Your task to perform on an android device: show emergency info Image 0: 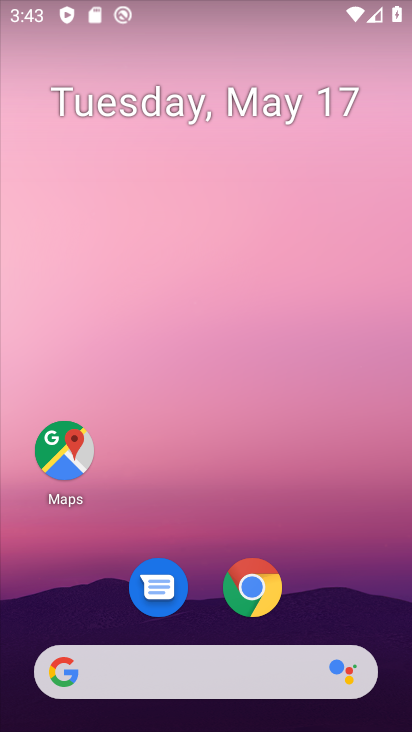
Step 0: drag from (274, 678) to (222, 192)
Your task to perform on an android device: show emergency info Image 1: 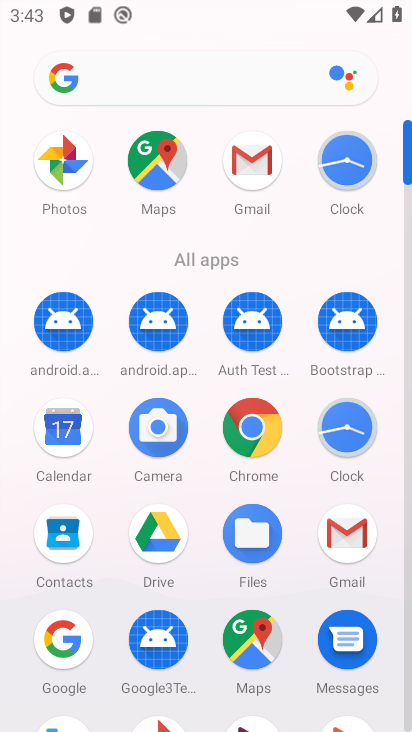
Step 1: drag from (199, 460) to (178, 331)
Your task to perform on an android device: show emergency info Image 2: 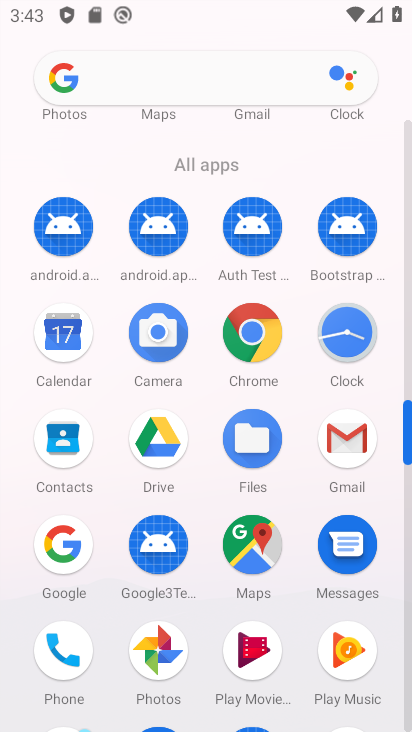
Step 2: drag from (119, 347) to (125, 238)
Your task to perform on an android device: show emergency info Image 3: 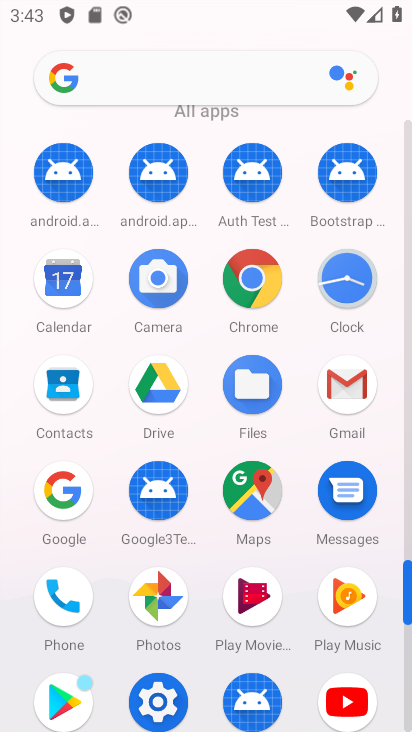
Step 3: click (143, 687)
Your task to perform on an android device: show emergency info Image 4: 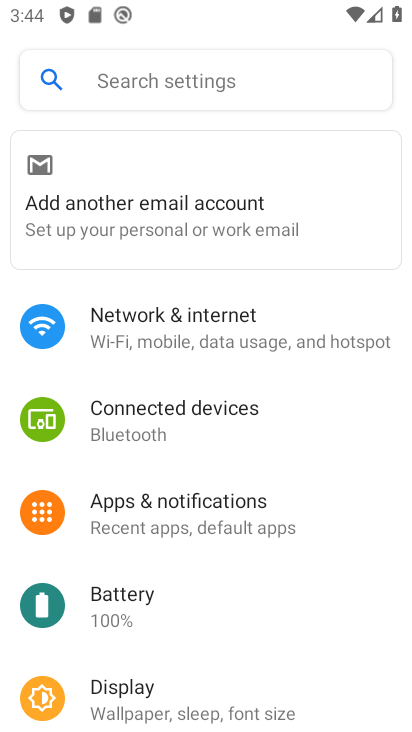
Step 4: click (144, 87)
Your task to perform on an android device: show emergency info Image 5: 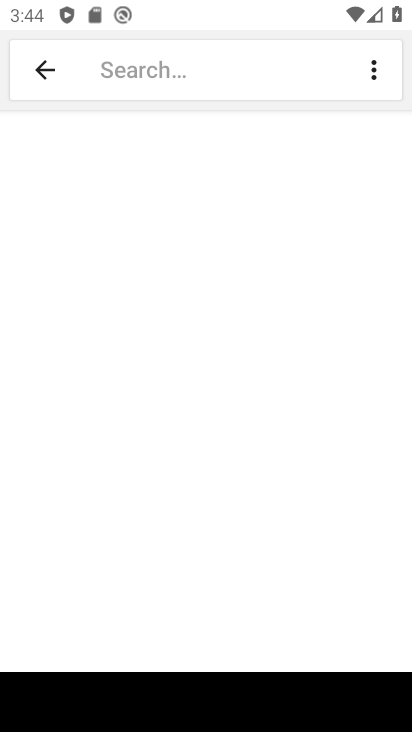
Step 5: drag from (357, 721) to (381, 632)
Your task to perform on an android device: show emergency info Image 6: 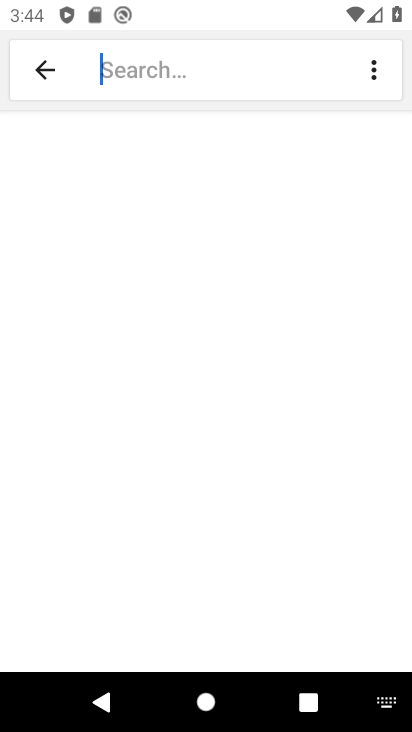
Step 6: click (397, 711)
Your task to perform on an android device: show emergency info Image 7: 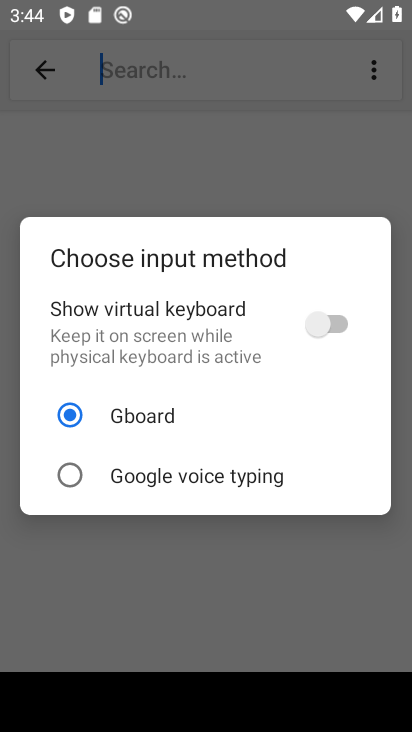
Step 7: click (315, 323)
Your task to perform on an android device: show emergency info Image 8: 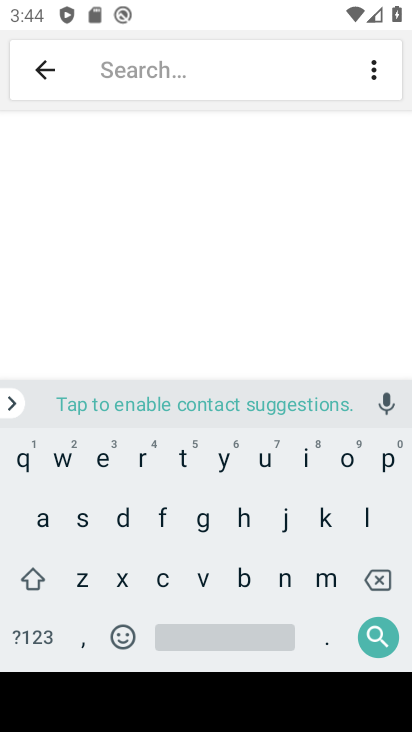
Step 8: click (110, 451)
Your task to perform on an android device: show emergency info Image 9: 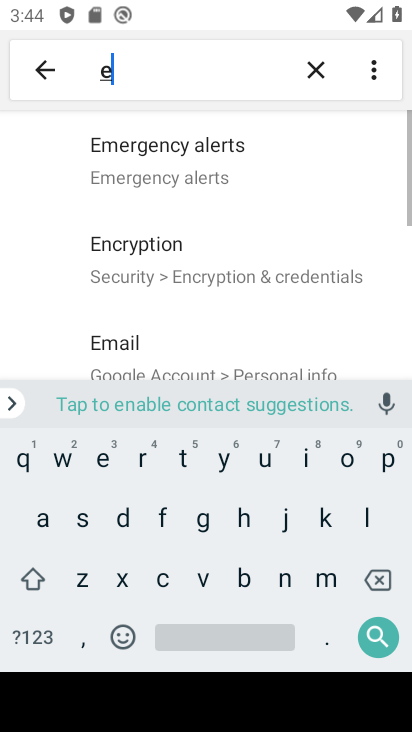
Step 9: click (331, 582)
Your task to perform on an android device: show emergency info Image 10: 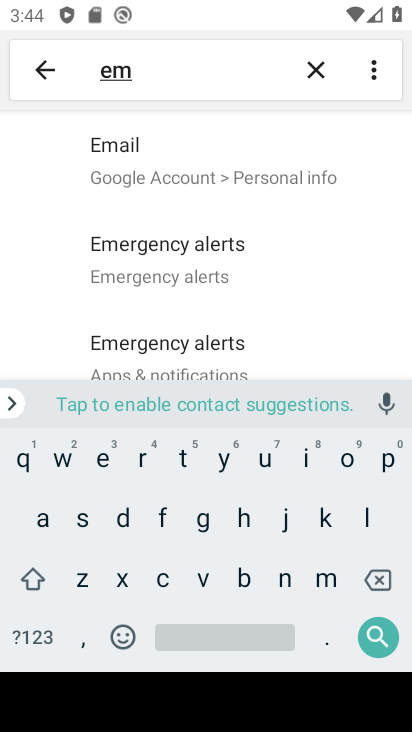
Step 10: click (101, 459)
Your task to perform on an android device: show emergency info Image 11: 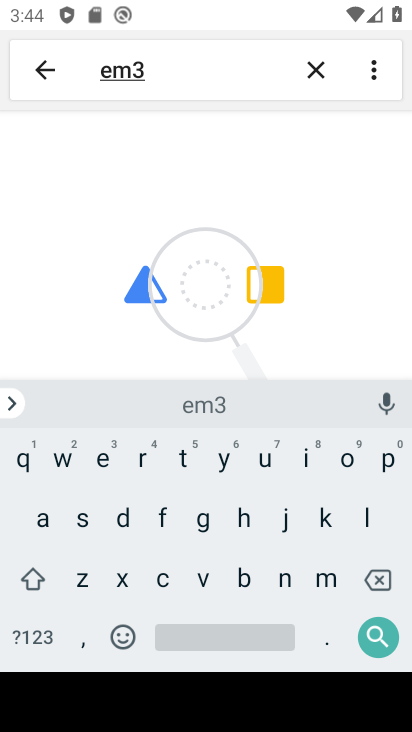
Step 11: click (389, 578)
Your task to perform on an android device: show emergency info Image 12: 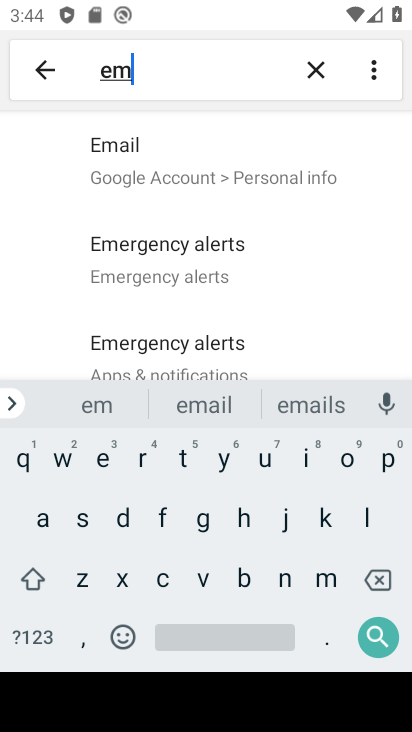
Step 12: click (106, 457)
Your task to perform on an android device: show emergency info Image 13: 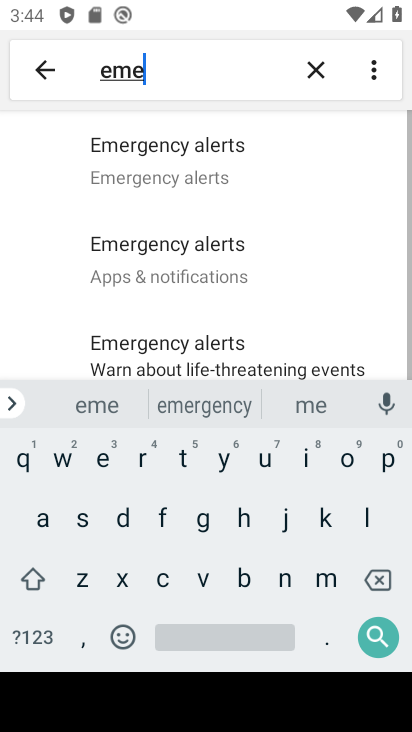
Step 13: click (188, 404)
Your task to perform on an android device: show emergency info Image 14: 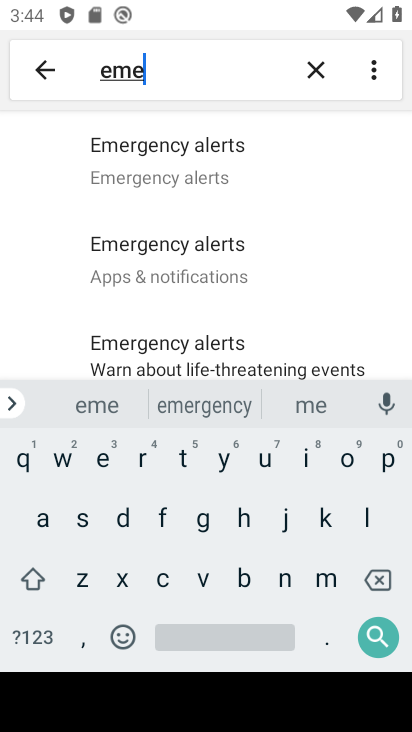
Step 14: click (228, 407)
Your task to perform on an android device: show emergency info Image 15: 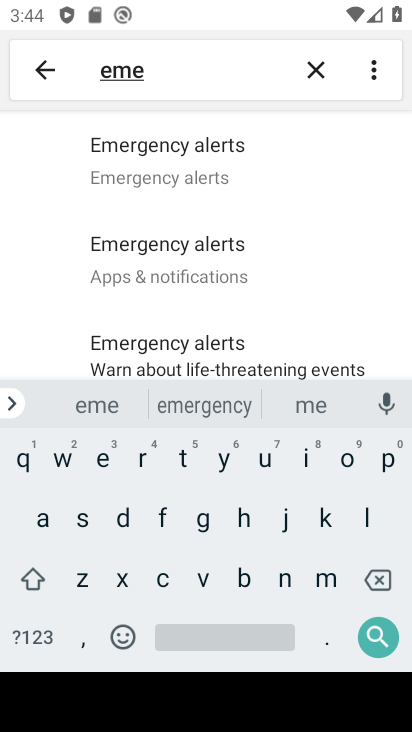
Step 15: click (183, 400)
Your task to perform on an android device: show emergency info Image 16: 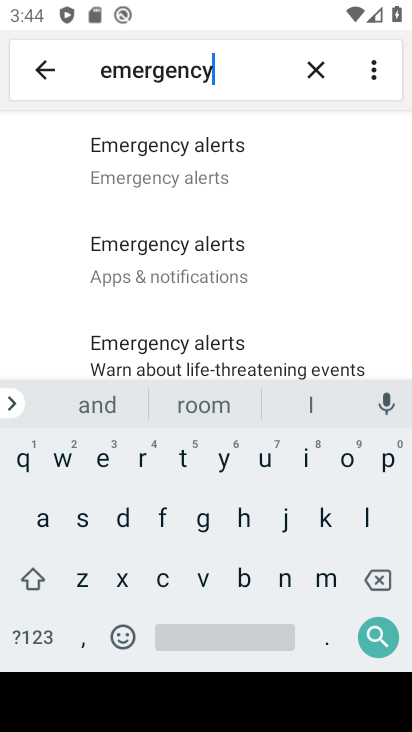
Step 16: click (308, 453)
Your task to perform on an android device: show emergency info Image 17: 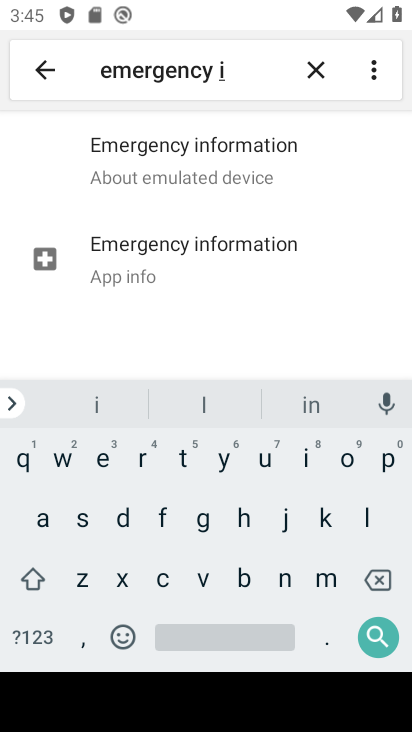
Step 17: click (177, 180)
Your task to perform on an android device: show emergency info Image 18: 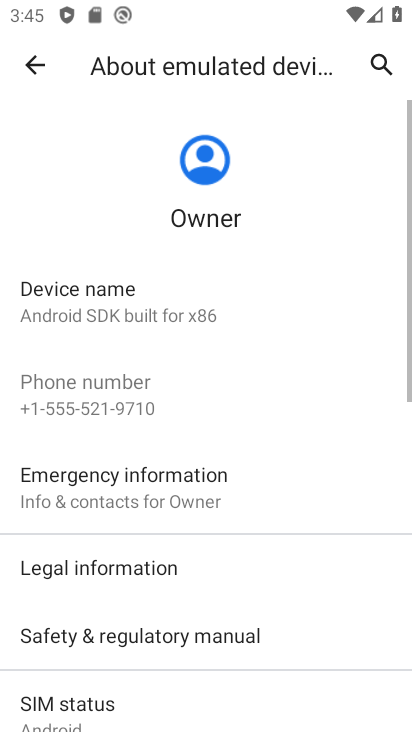
Step 18: task complete